Your task to perform on an android device: move a message to another label in the gmail app Image 0: 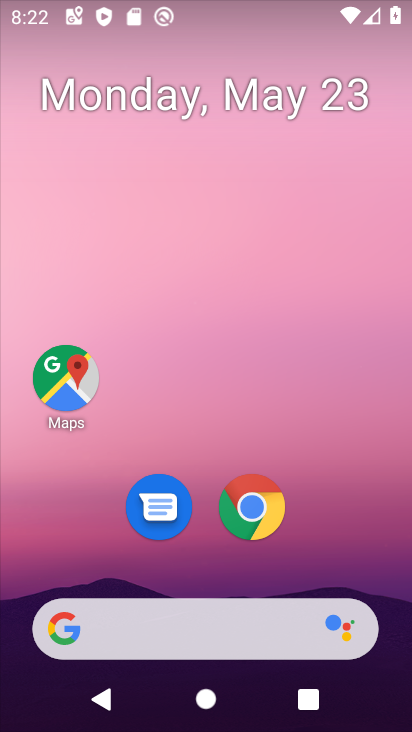
Step 0: drag from (348, 527) to (341, 60)
Your task to perform on an android device: move a message to another label in the gmail app Image 1: 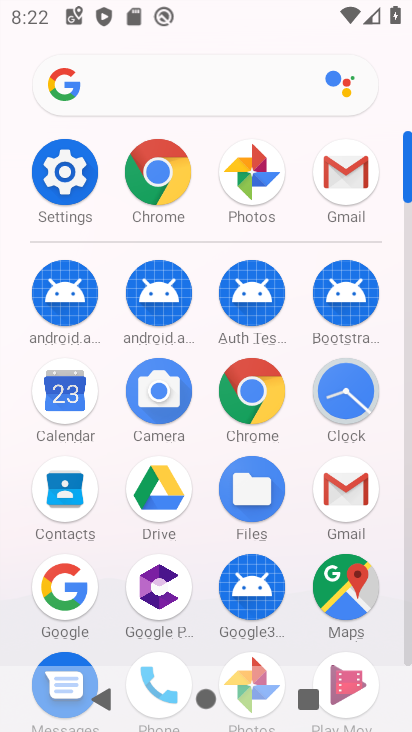
Step 1: click (365, 493)
Your task to perform on an android device: move a message to another label in the gmail app Image 2: 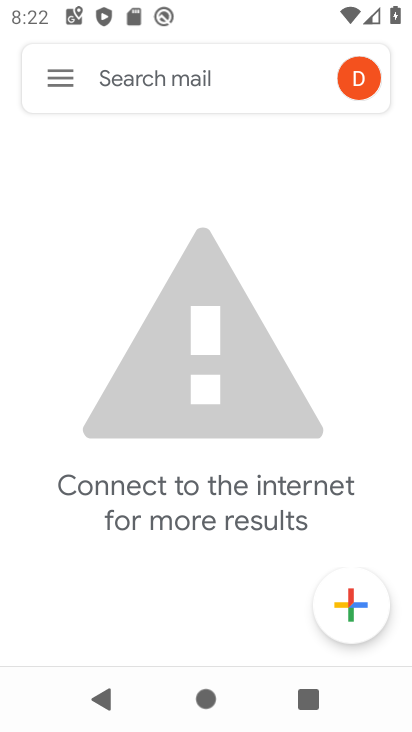
Step 2: click (45, 79)
Your task to perform on an android device: move a message to another label in the gmail app Image 3: 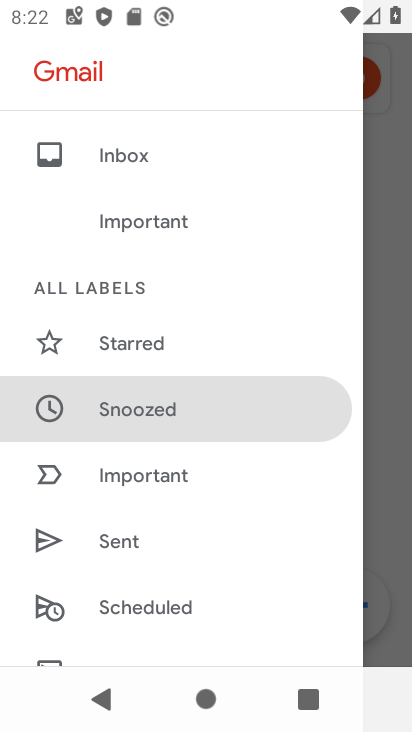
Step 3: drag from (216, 569) to (255, 153)
Your task to perform on an android device: move a message to another label in the gmail app Image 4: 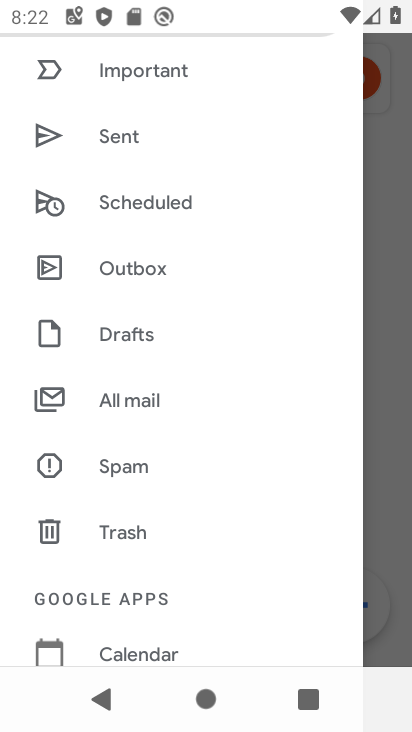
Step 4: click (169, 381)
Your task to perform on an android device: move a message to another label in the gmail app Image 5: 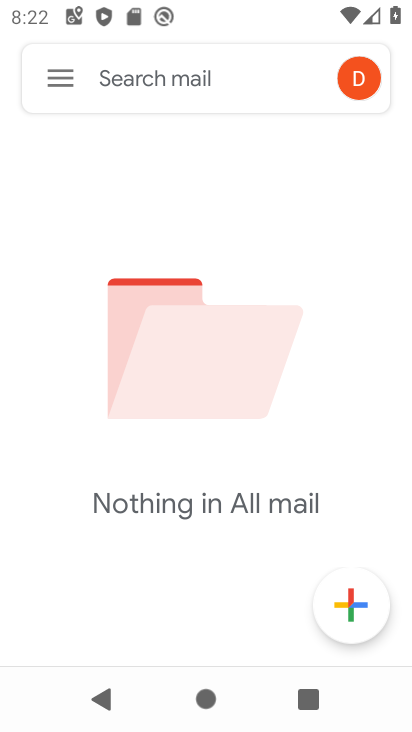
Step 5: task complete